Your task to perform on an android device: Open Chrome and go to the settings page Image 0: 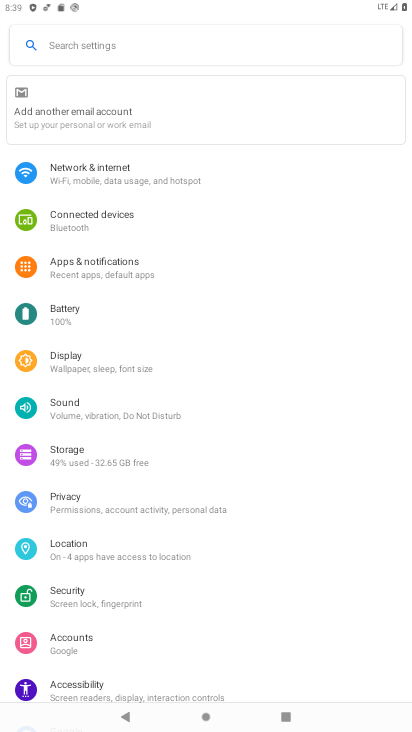
Step 0: press home button
Your task to perform on an android device: Open Chrome and go to the settings page Image 1: 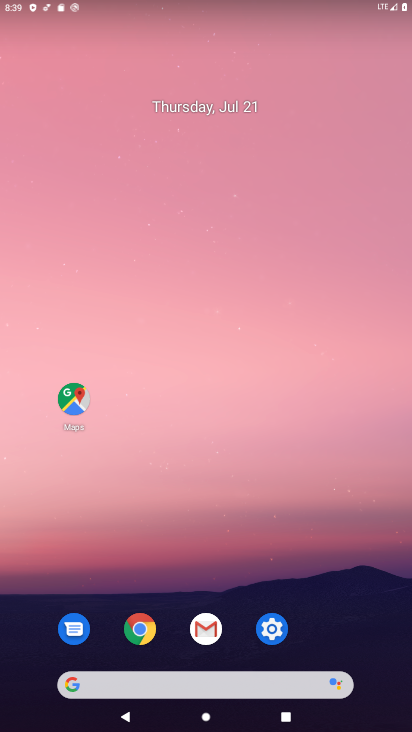
Step 1: click (139, 633)
Your task to perform on an android device: Open Chrome and go to the settings page Image 2: 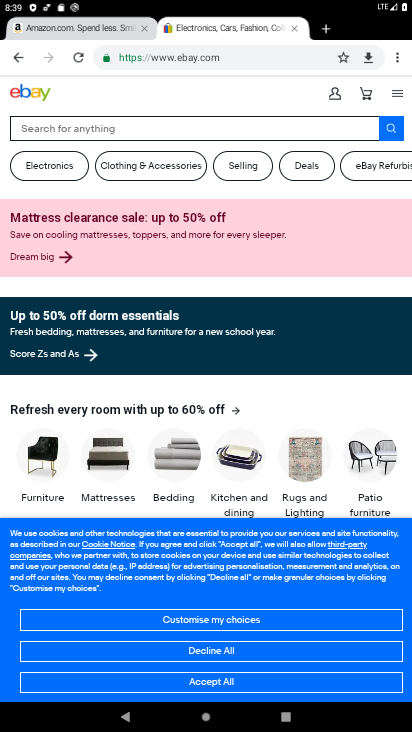
Step 2: click (394, 59)
Your task to perform on an android device: Open Chrome and go to the settings page Image 3: 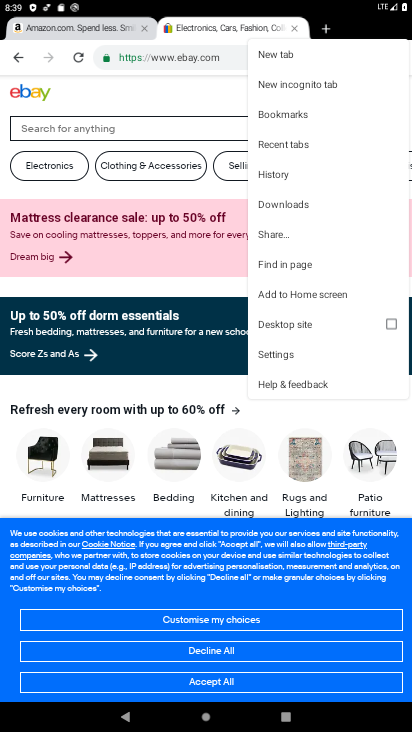
Step 3: click (287, 356)
Your task to perform on an android device: Open Chrome and go to the settings page Image 4: 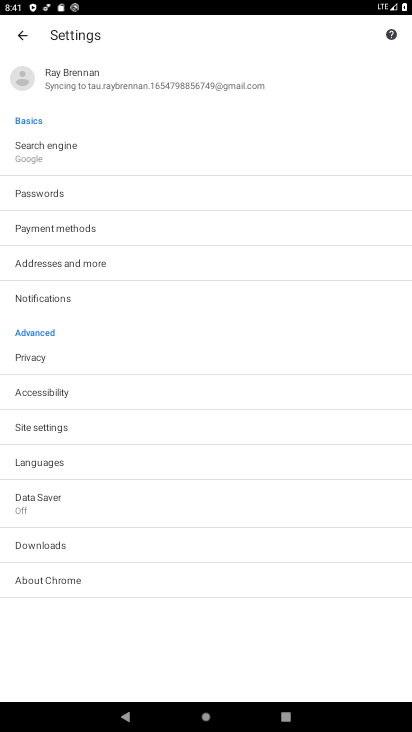
Step 4: task complete